Your task to perform on an android device: Turn off the flashlight Image 0: 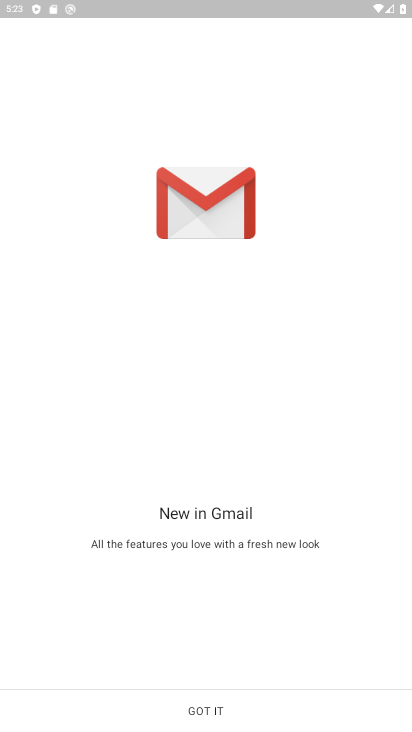
Step 0: press home button
Your task to perform on an android device: Turn off the flashlight Image 1: 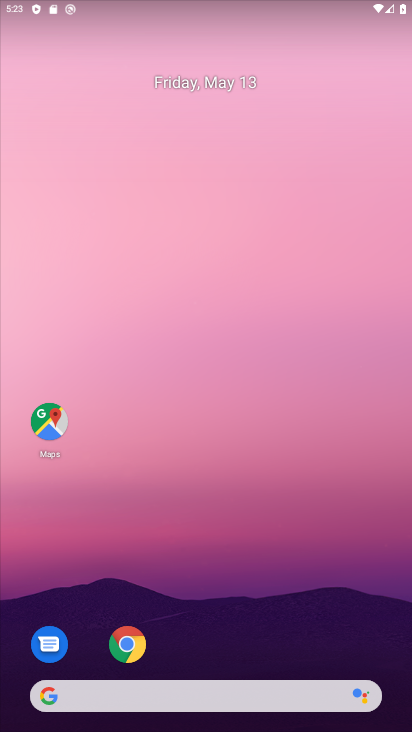
Step 1: drag from (186, 569) to (259, 0)
Your task to perform on an android device: Turn off the flashlight Image 2: 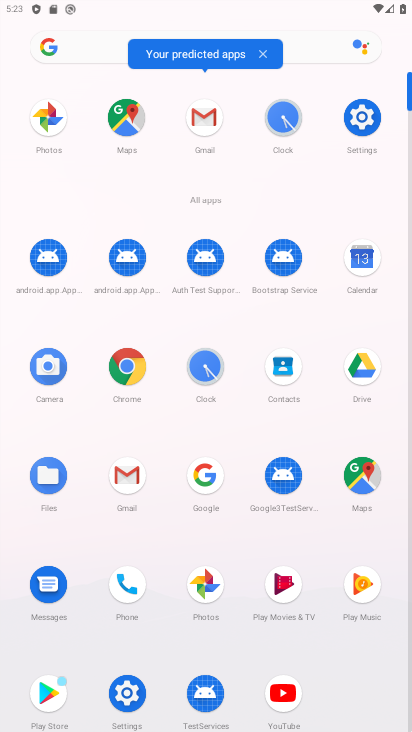
Step 2: click (371, 109)
Your task to perform on an android device: Turn off the flashlight Image 3: 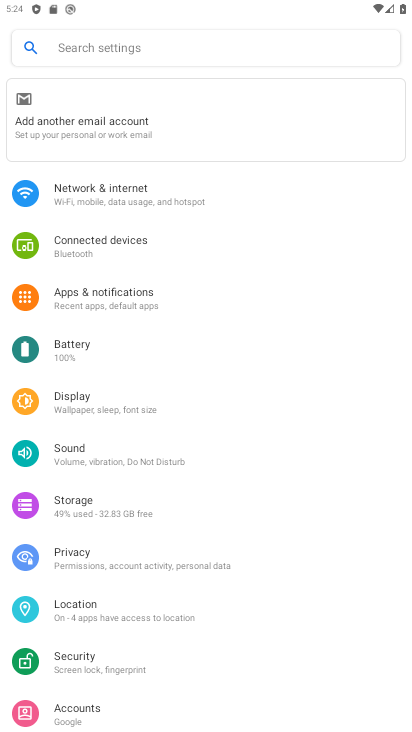
Step 3: click (185, 47)
Your task to perform on an android device: Turn off the flashlight Image 4: 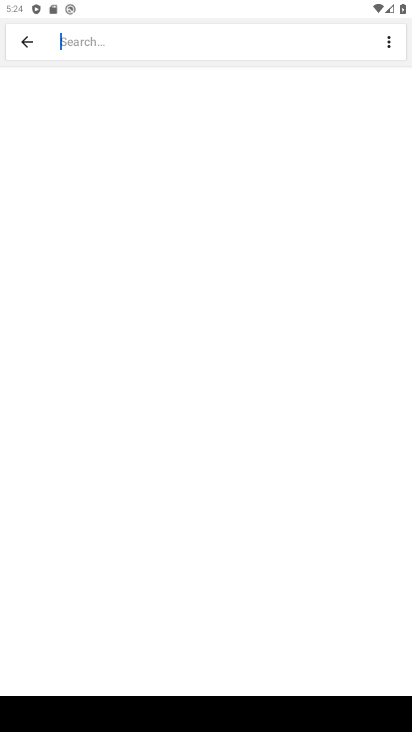
Step 4: type "flashlight"
Your task to perform on an android device: Turn off the flashlight Image 5: 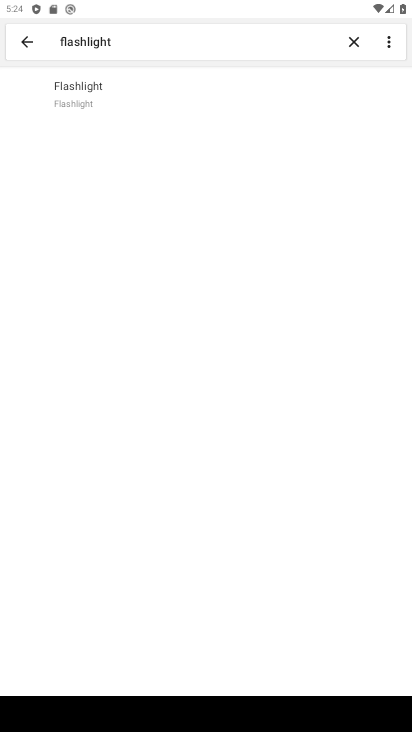
Step 5: click (133, 96)
Your task to perform on an android device: Turn off the flashlight Image 6: 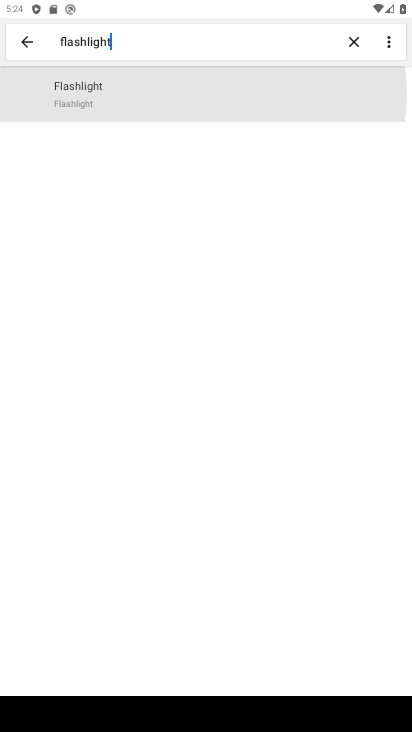
Step 6: click (133, 95)
Your task to perform on an android device: Turn off the flashlight Image 7: 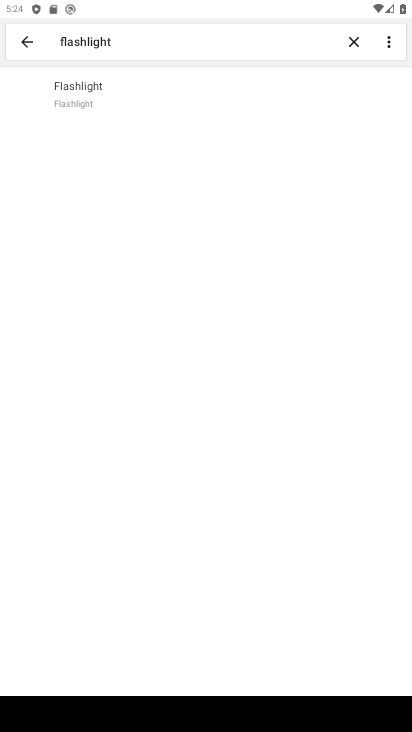
Step 7: task complete